Your task to perform on an android device: Go to sound settings Image 0: 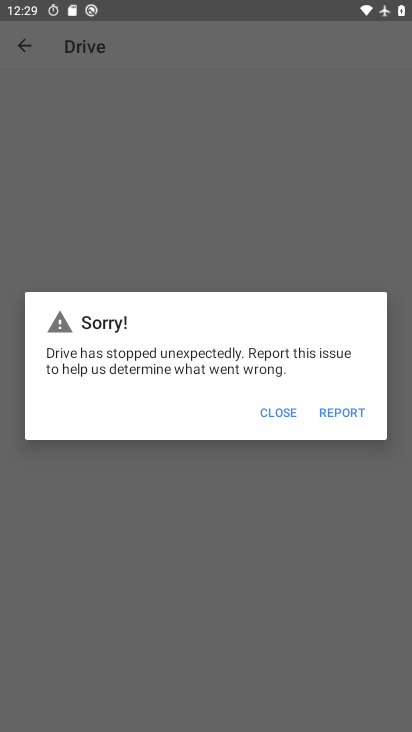
Step 0: press home button
Your task to perform on an android device: Go to sound settings Image 1: 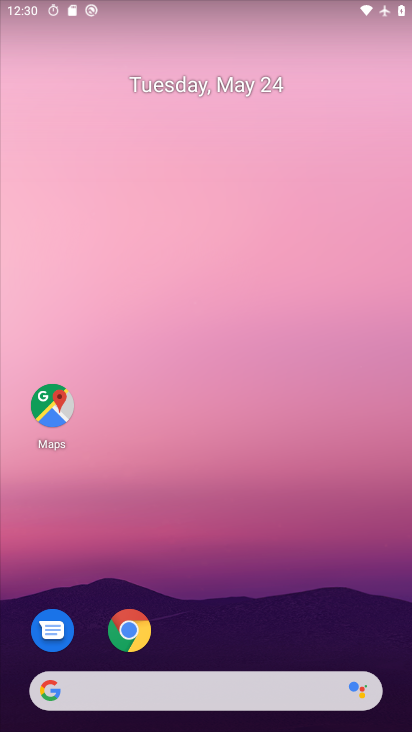
Step 1: drag from (221, 637) to (289, 127)
Your task to perform on an android device: Go to sound settings Image 2: 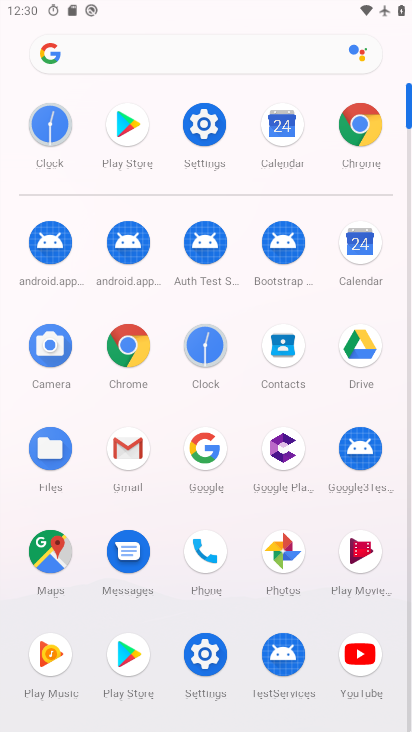
Step 2: click (197, 661)
Your task to perform on an android device: Go to sound settings Image 3: 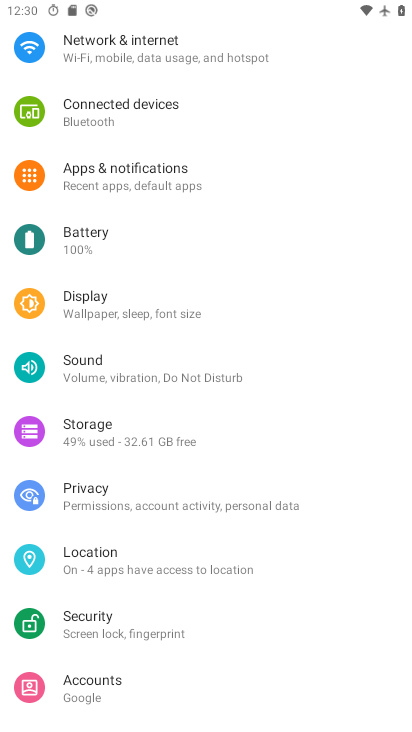
Step 3: drag from (141, 222) to (136, 392)
Your task to perform on an android device: Go to sound settings Image 4: 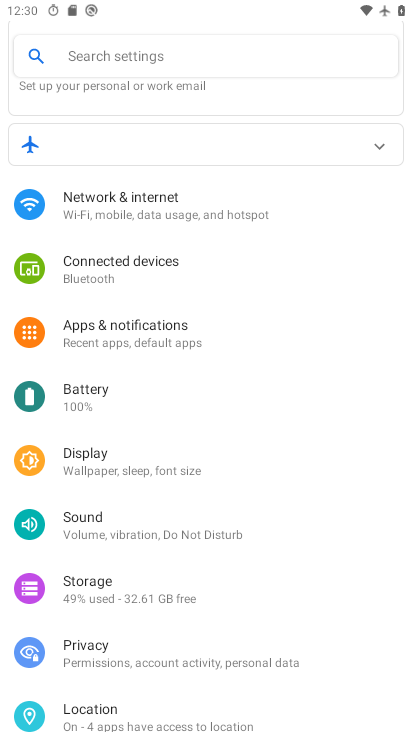
Step 4: click (142, 526)
Your task to perform on an android device: Go to sound settings Image 5: 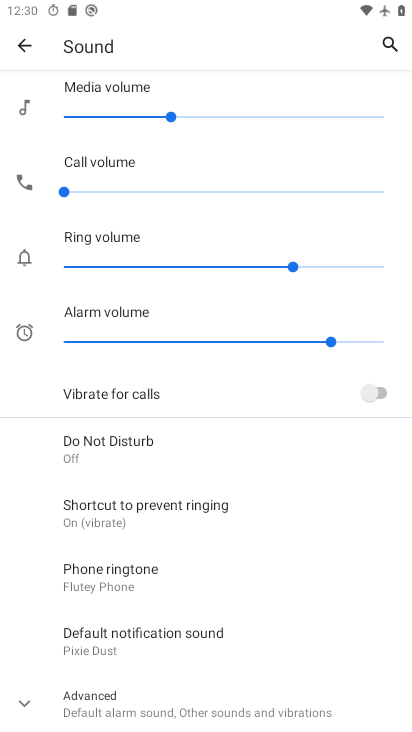
Step 5: task complete